Your task to perform on an android device: Open Google Maps and go to "Timeline" Image 0: 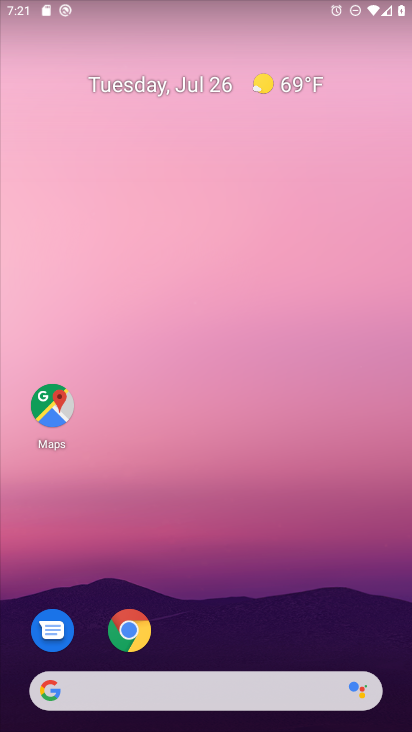
Step 0: drag from (246, 574) to (244, 103)
Your task to perform on an android device: Open Google Maps and go to "Timeline" Image 1: 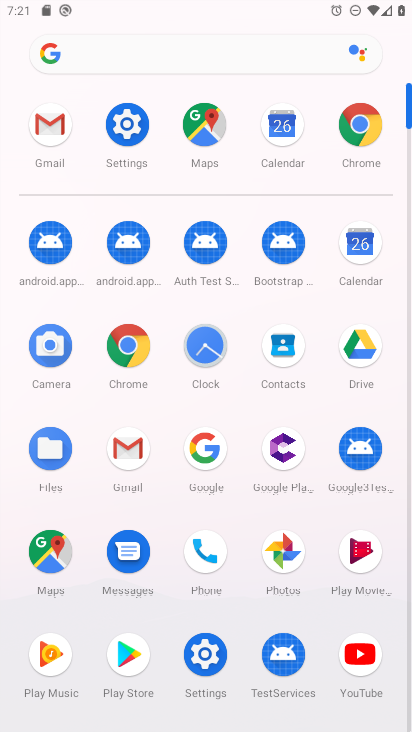
Step 1: click (69, 556)
Your task to perform on an android device: Open Google Maps and go to "Timeline" Image 2: 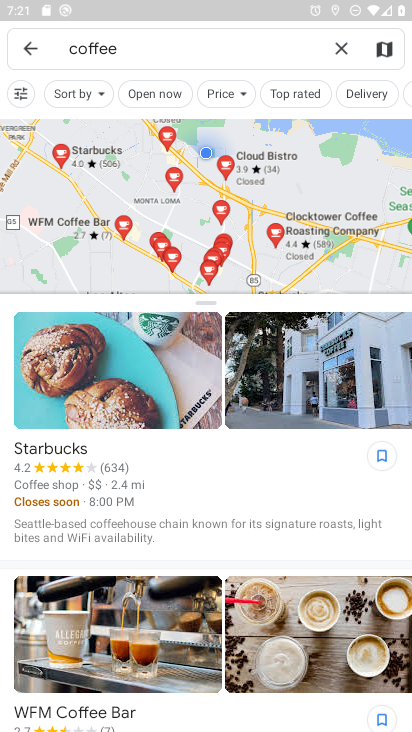
Step 2: click (26, 40)
Your task to perform on an android device: Open Google Maps and go to "Timeline" Image 3: 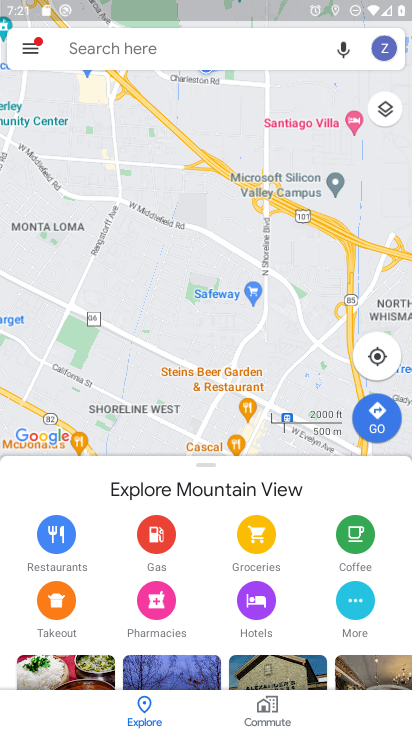
Step 3: click (35, 50)
Your task to perform on an android device: Open Google Maps and go to "Timeline" Image 4: 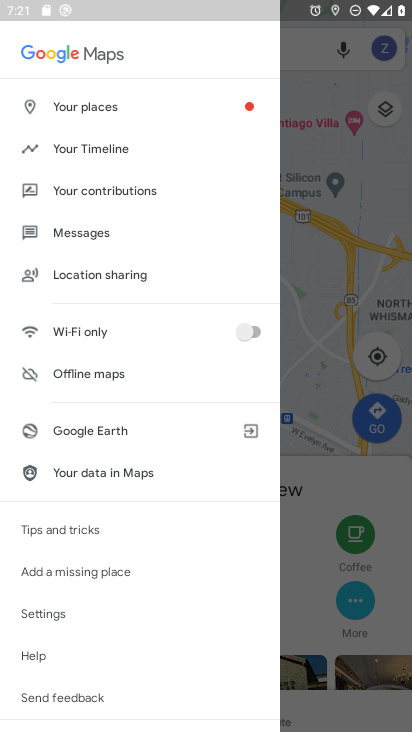
Step 4: click (130, 144)
Your task to perform on an android device: Open Google Maps and go to "Timeline" Image 5: 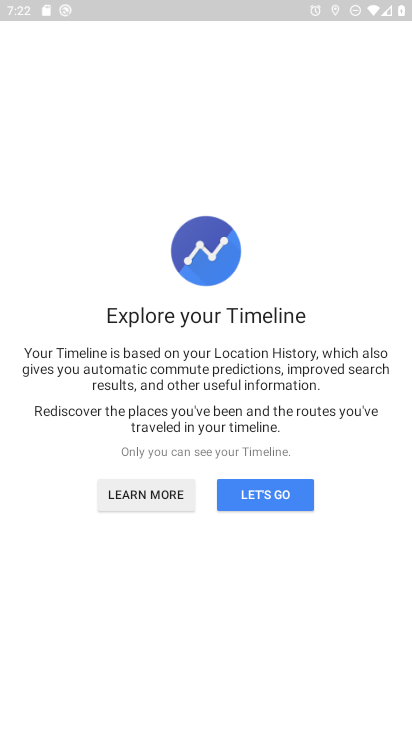
Step 5: click (197, 639)
Your task to perform on an android device: Open Google Maps and go to "Timeline" Image 6: 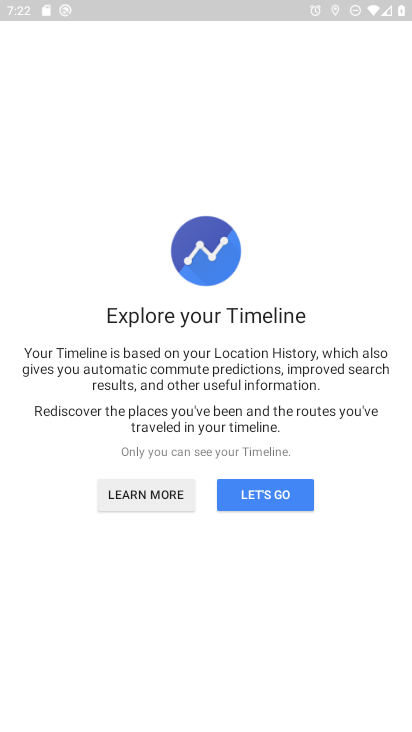
Step 6: task complete